Your task to perform on an android device: Open notification settings Image 0: 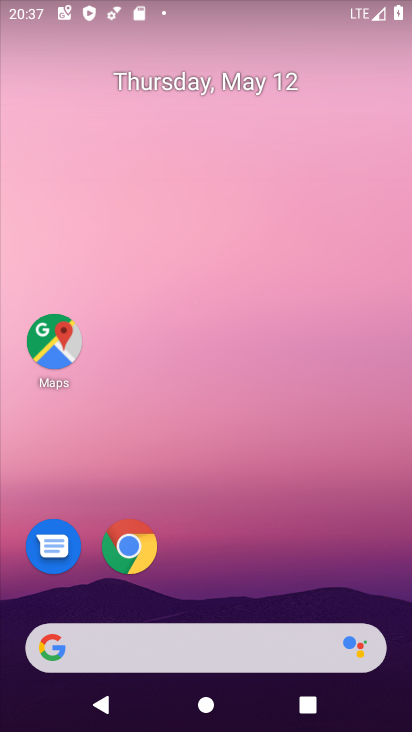
Step 0: drag from (247, 605) to (313, 50)
Your task to perform on an android device: Open notification settings Image 1: 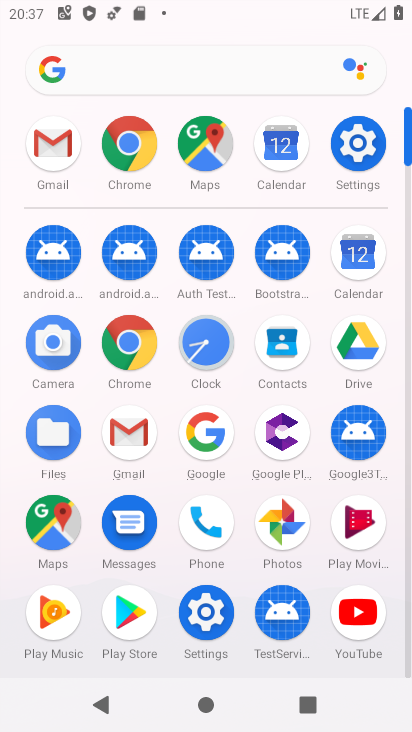
Step 1: click (361, 140)
Your task to perform on an android device: Open notification settings Image 2: 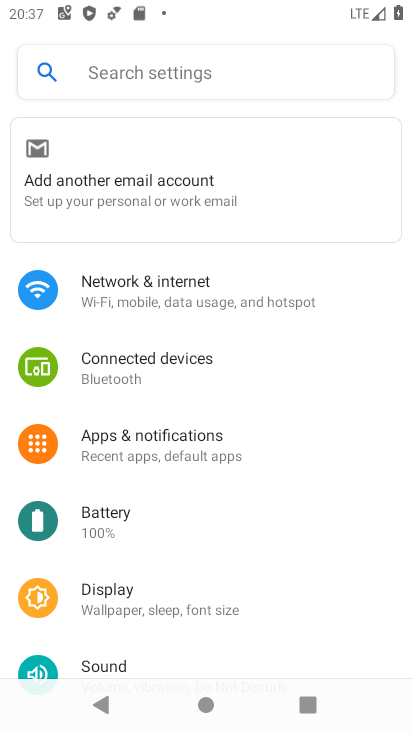
Step 2: click (160, 437)
Your task to perform on an android device: Open notification settings Image 3: 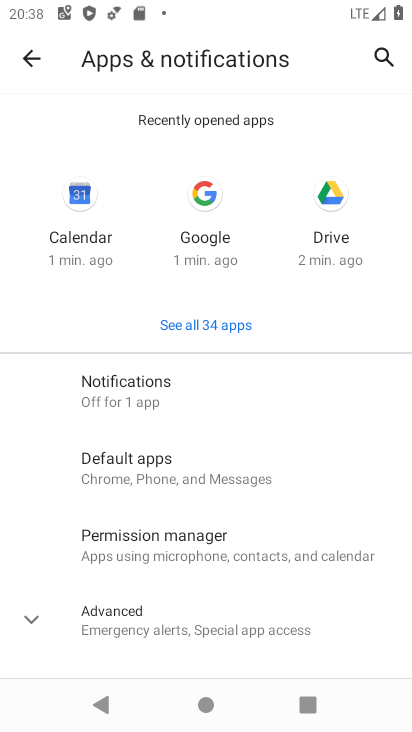
Step 3: task complete